Your task to perform on an android device: turn off location history Image 0: 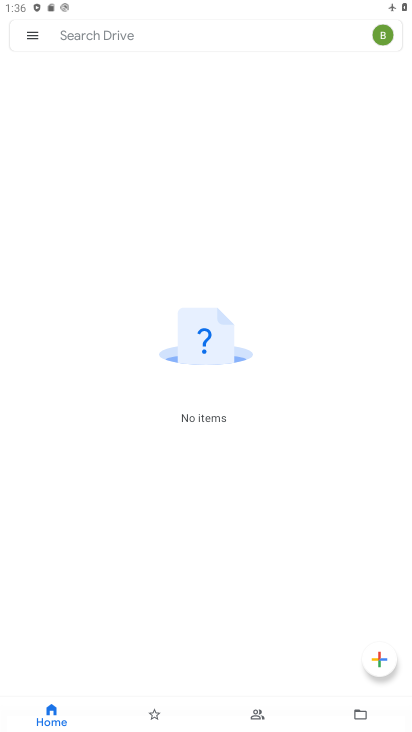
Step 0: press home button
Your task to perform on an android device: turn off location history Image 1: 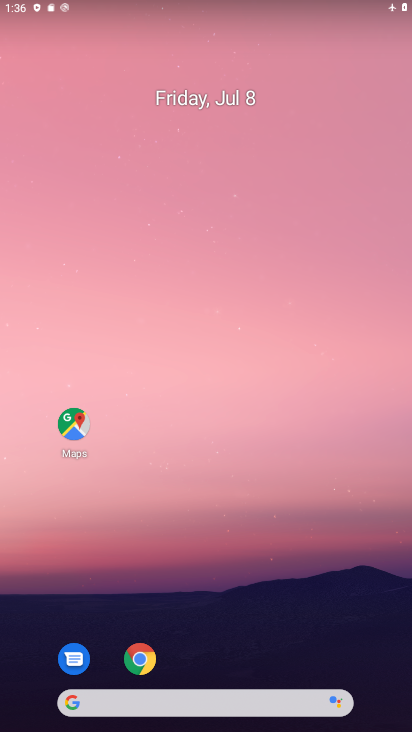
Step 1: drag from (350, 616) to (257, 243)
Your task to perform on an android device: turn off location history Image 2: 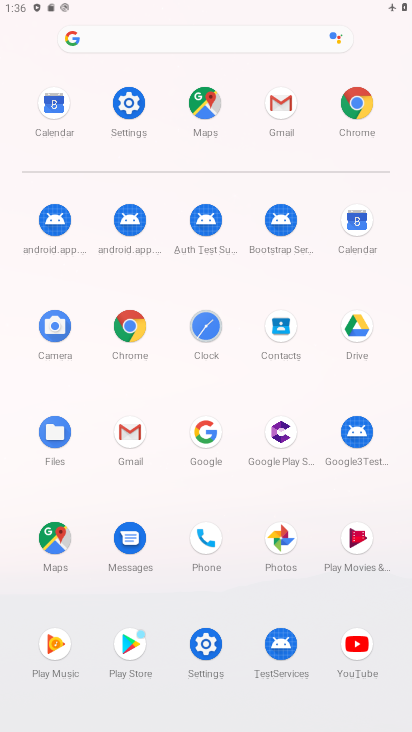
Step 2: click (213, 655)
Your task to perform on an android device: turn off location history Image 3: 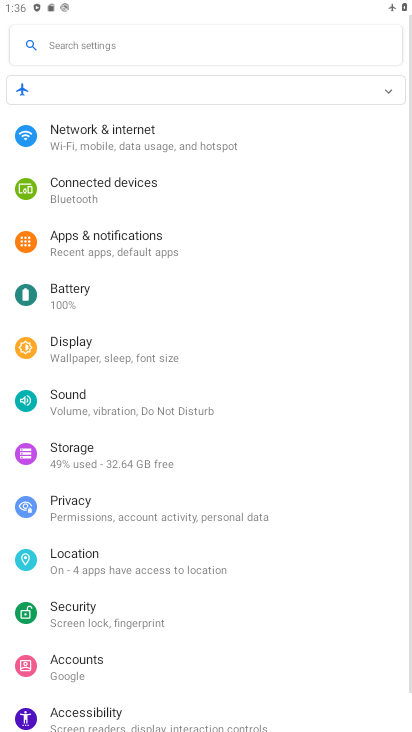
Step 3: drag from (281, 562) to (307, 336)
Your task to perform on an android device: turn off location history Image 4: 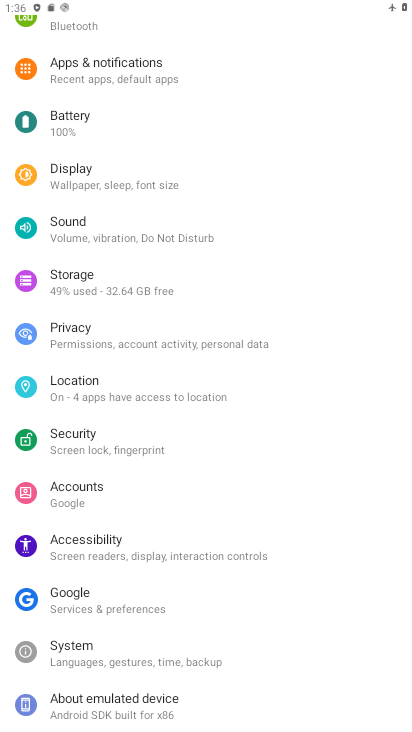
Step 4: drag from (229, 242) to (267, 424)
Your task to perform on an android device: turn off location history Image 5: 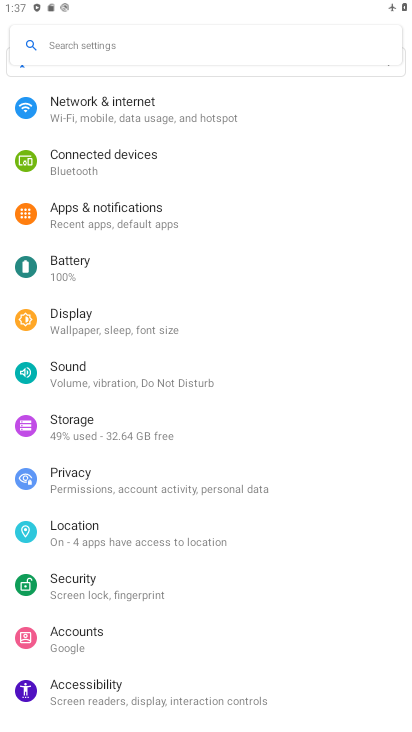
Step 5: click (143, 537)
Your task to perform on an android device: turn off location history Image 6: 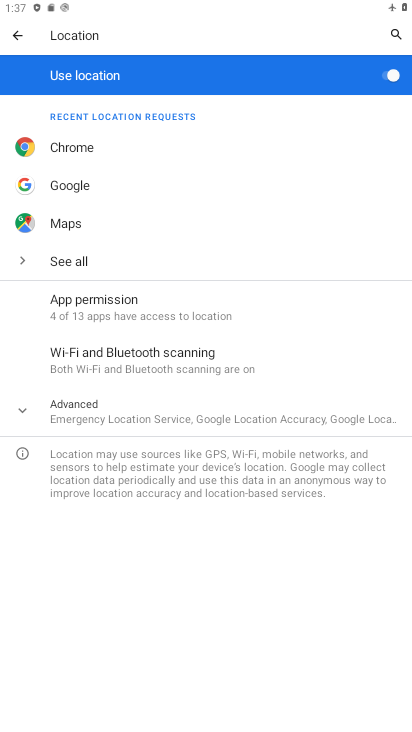
Step 6: click (148, 410)
Your task to perform on an android device: turn off location history Image 7: 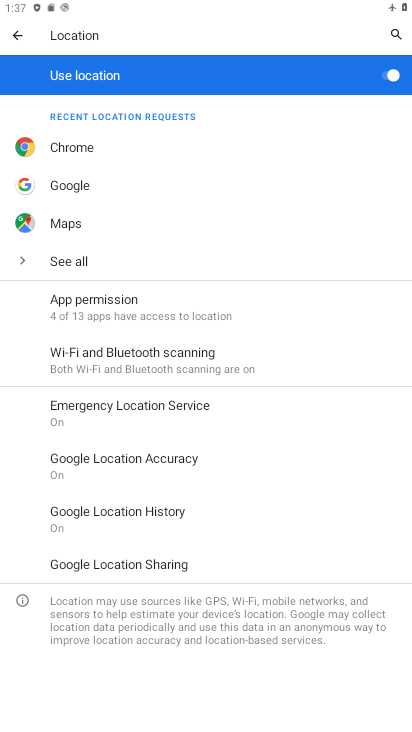
Step 7: click (145, 513)
Your task to perform on an android device: turn off location history Image 8: 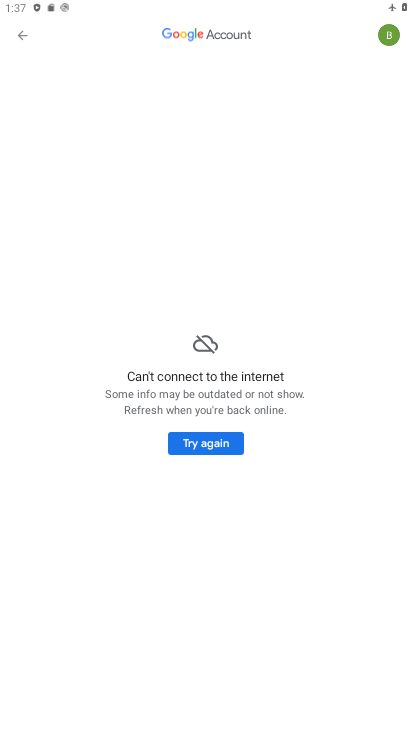
Step 8: task complete